Your task to perform on an android device: turn on the 12-hour format for clock Image 0: 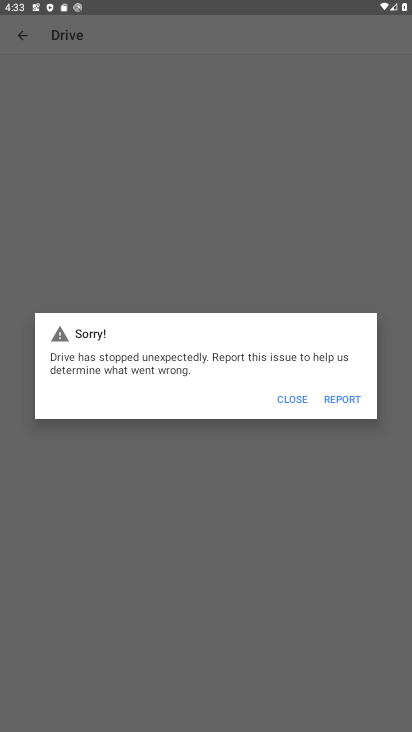
Step 0: press back button
Your task to perform on an android device: turn on the 12-hour format for clock Image 1: 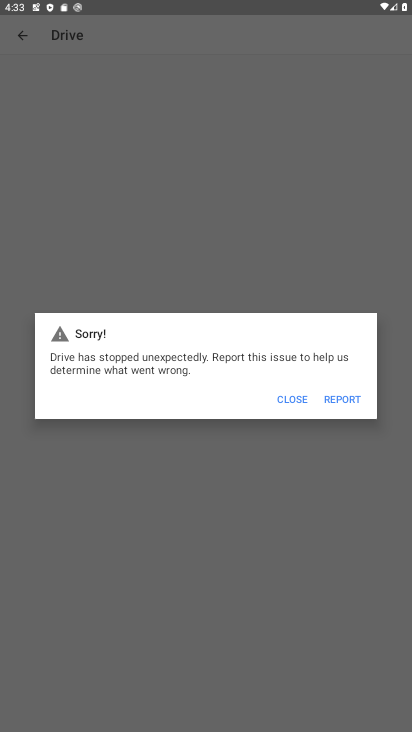
Step 1: press back button
Your task to perform on an android device: turn on the 12-hour format for clock Image 2: 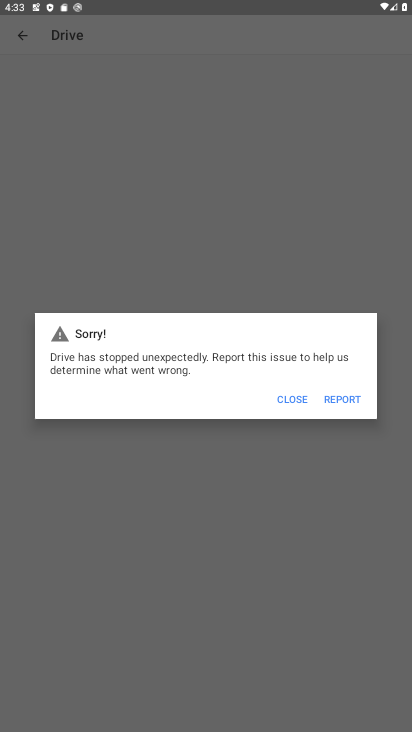
Step 2: press home button
Your task to perform on an android device: turn on the 12-hour format for clock Image 3: 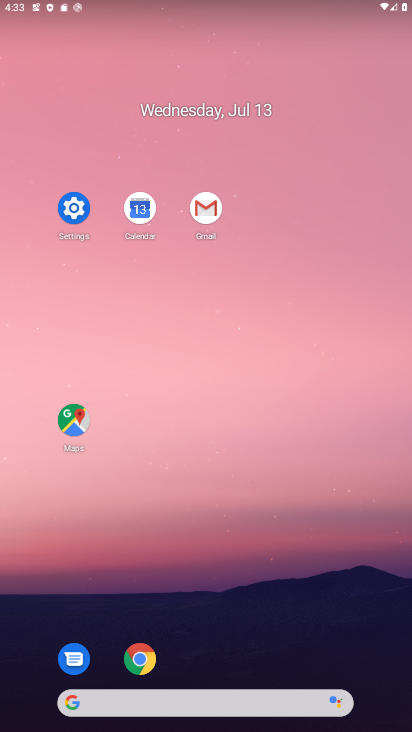
Step 3: drag from (268, 598) to (239, 193)
Your task to perform on an android device: turn on the 12-hour format for clock Image 4: 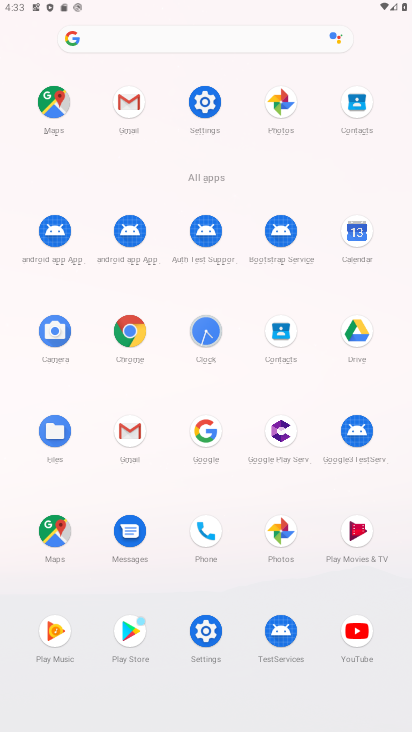
Step 4: drag from (206, 331) to (249, 211)
Your task to perform on an android device: turn on the 12-hour format for clock Image 5: 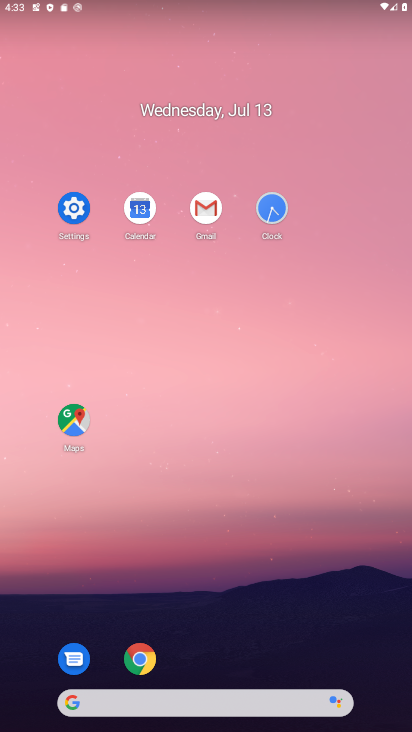
Step 5: click (263, 210)
Your task to perform on an android device: turn on the 12-hour format for clock Image 6: 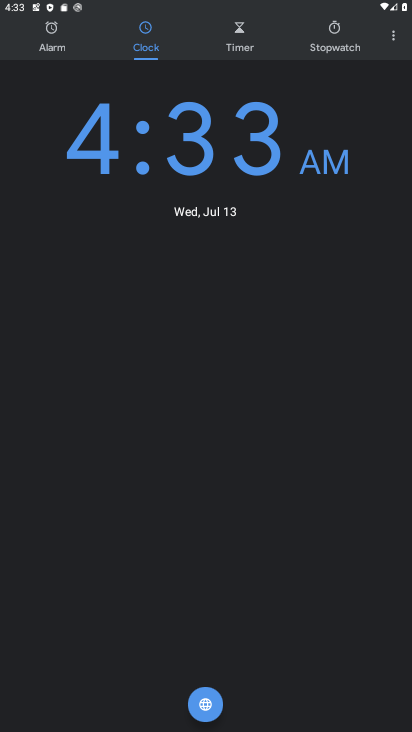
Step 6: click (400, 40)
Your task to perform on an android device: turn on the 12-hour format for clock Image 7: 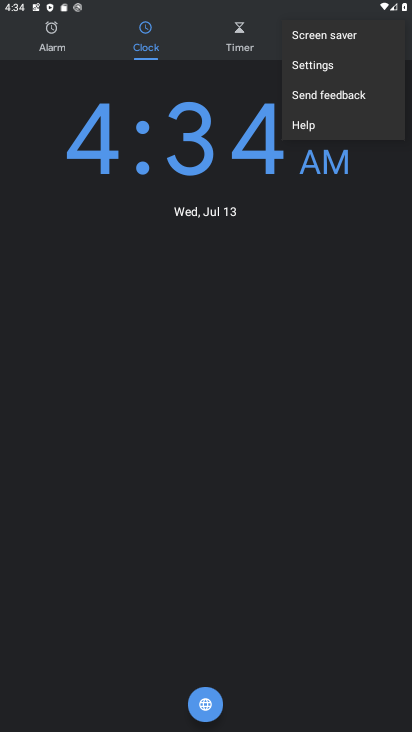
Step 7: click (315, 58)
Your task to perform on an android device: turn on the 12-hour format for clock Image 8: 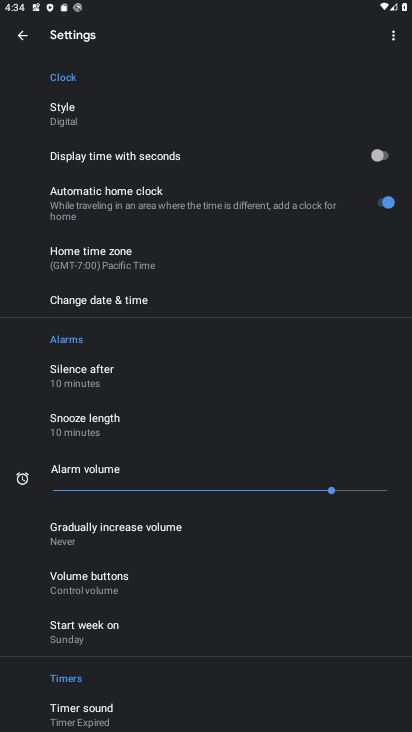
Step 8: click (61, 303)
Your task to perform on an android device: turn on the 12-hour format for clock Image 9: 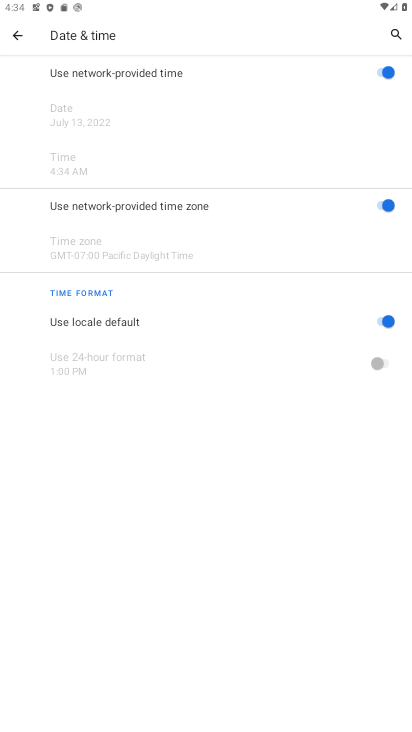
Step 9: task complete